Your task to perform on an android device: Open Google Chrome Image 0: 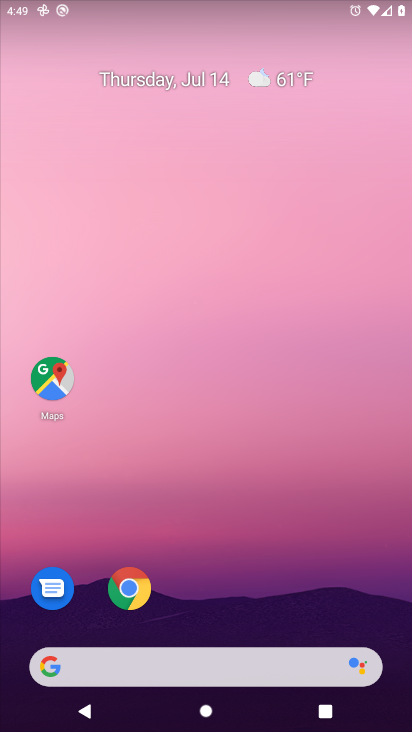
Step 0: drag from (221, 476) to (239, 76)
Your task to perform on an android device: Open Google Chrome Image 1: 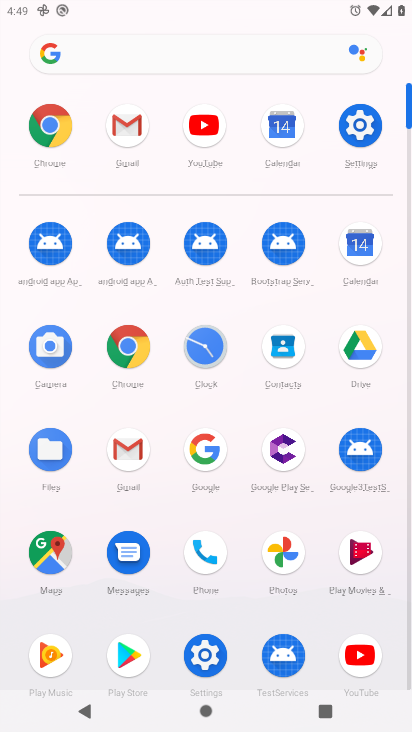
Step 1: click (124, 349)
Your task to perform on an android device: Open Google Chrome Image 2: 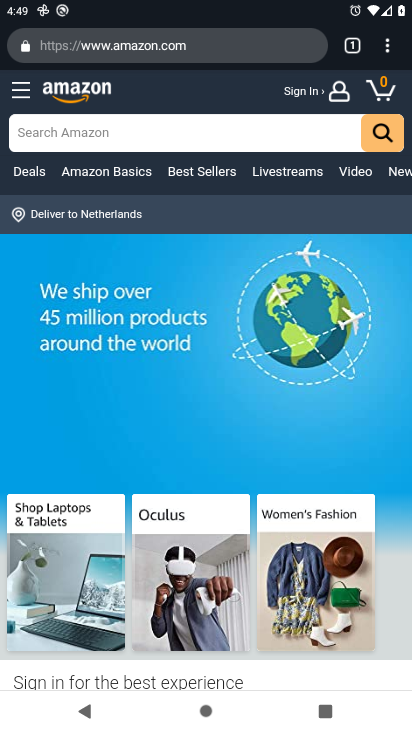
Step 2: task complete